Your task to perform on an android device: Open Maps and search for coffee Image 0: 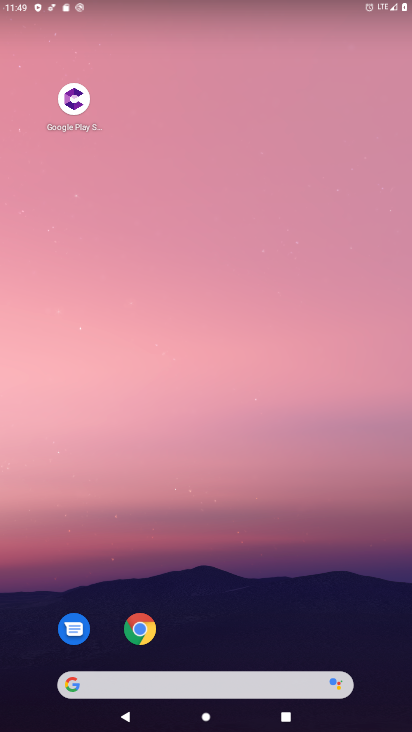
Step 0: press home button
Your task to perform on an android device: Open Maps and search for coffee Image 1: 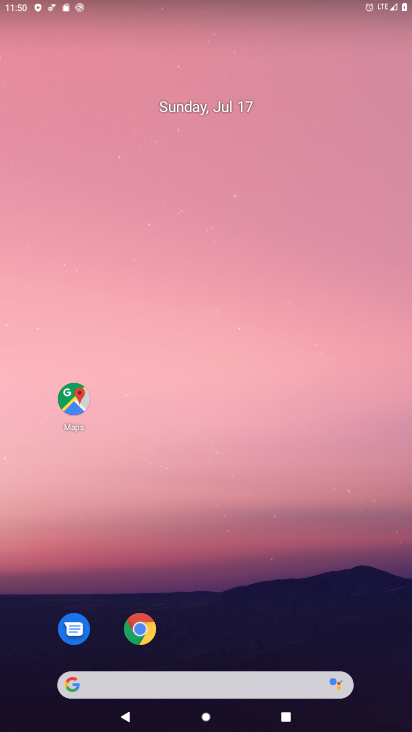
Step 1: click (63, 410)
Your task to perform on an android device: Open Maps and search for coffee Image 2: 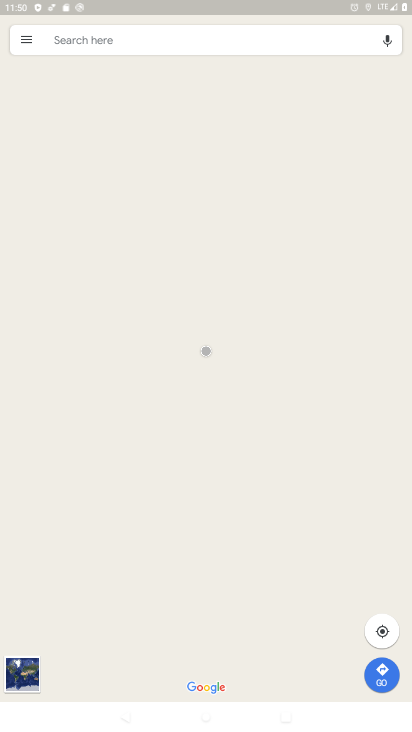
Step 2: click (235, 31)
Your task to perform on an android device: Open Maps and search for coffee Image 3: 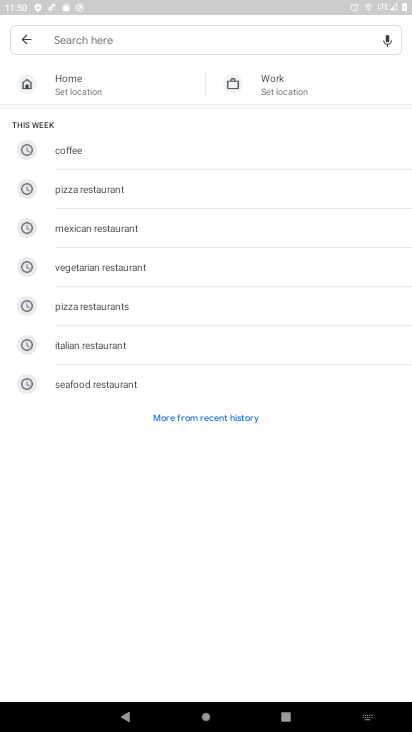
Step 3: type "coffee"
Your task to perform on an android device: Open Maps and search for coffee Image 4: 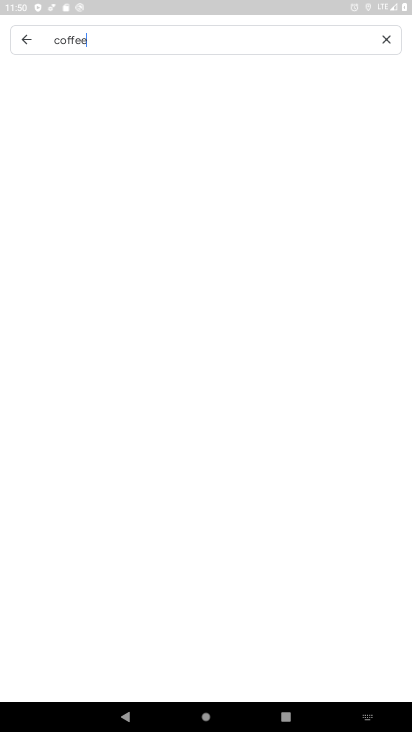
Step 4: type ""
Your task to perform on an android device: Open Maps and search for coffee Image 5: 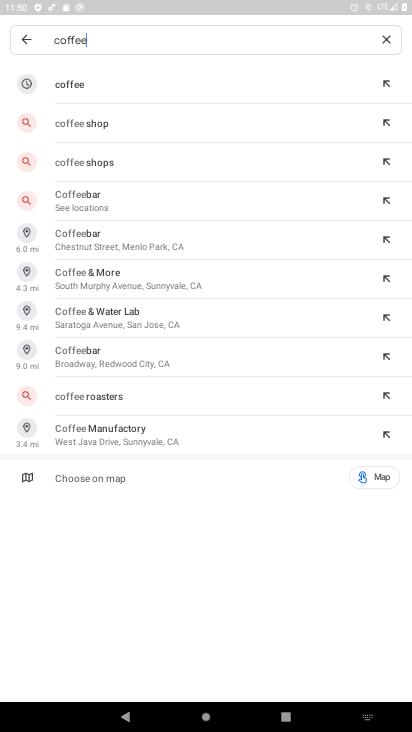
Step 5: click (228, 84)
Your task to perform on an android device: Open Maps and search for coffee Image 6: 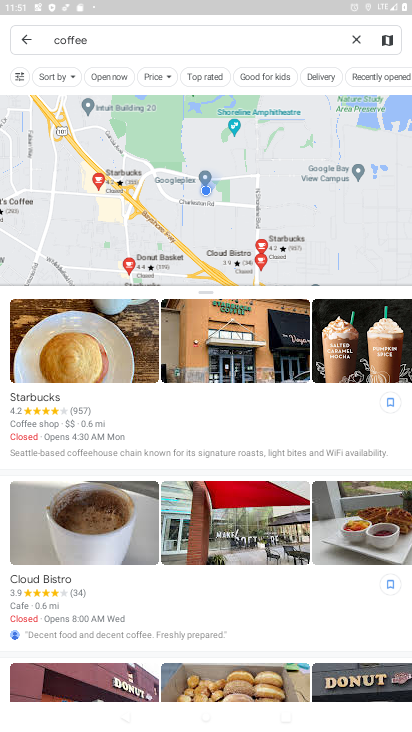
Step 6: task complete